Your task to perform on an android device: turn off priority inbox in the gmail app Image 0: 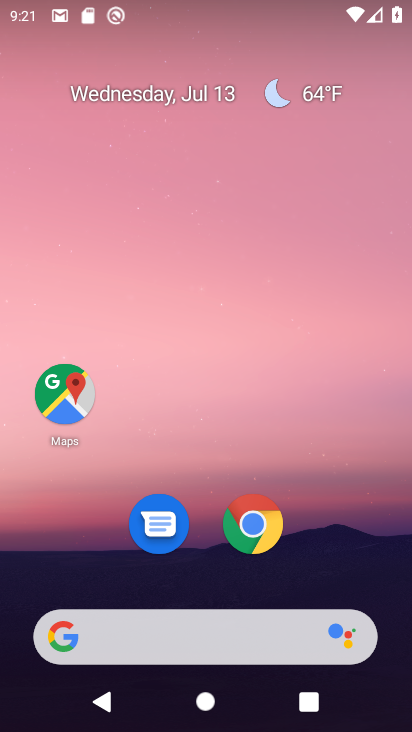
Step 0: drag from (188, 592) to (215, 47)
Your task to perform on an android device: turn off priority inbox in the gmail app Image 1: 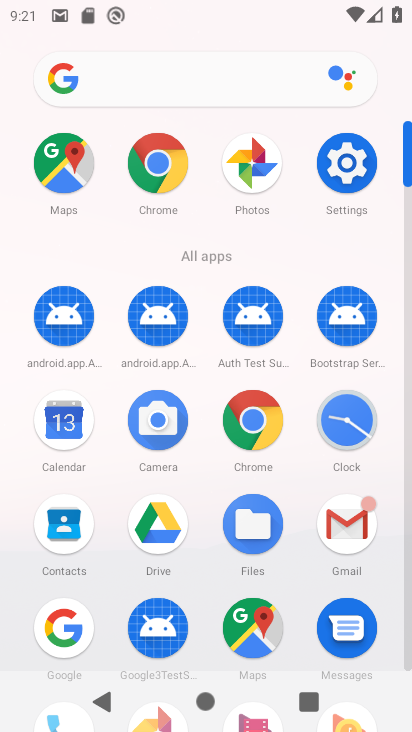
Step 1: click (339, 524)
Your task to perform on an android device: turn off priority inbox in the gmail app Image 2: 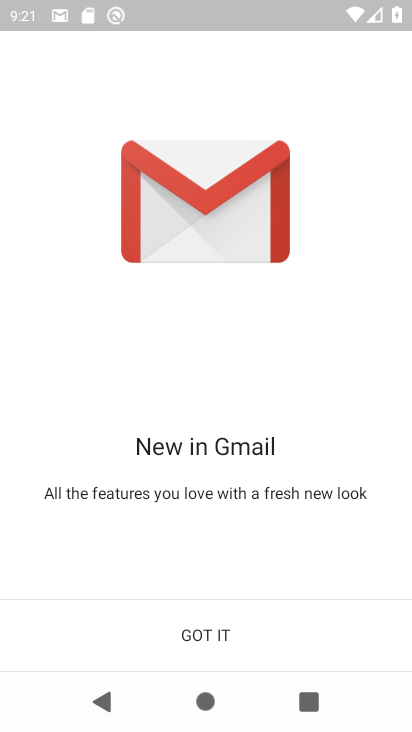
Step 2: click (179, 656)
Your task to perform on an android device: turn off priority inbox in the gmail app Image 3: 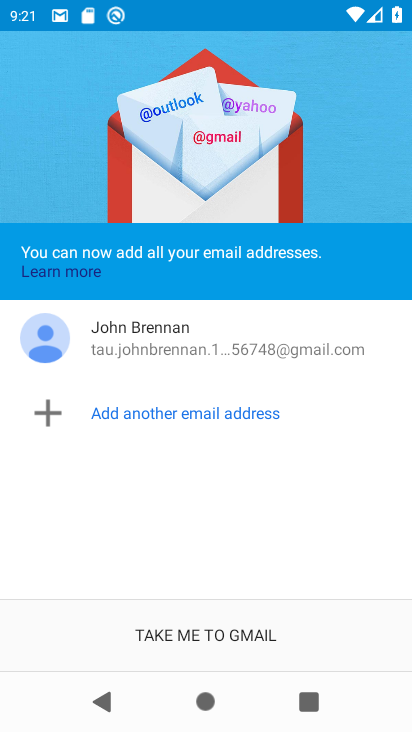
Step 3: click (180, 655)
Your task to perform on an android device: turn off priority inbox in the gmail app Image 4: 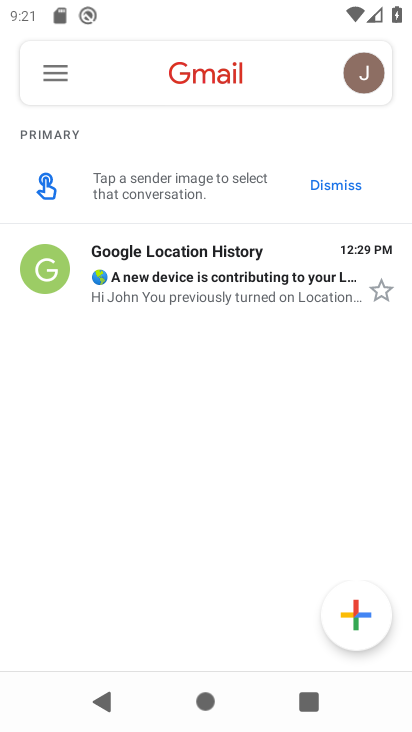
Step 4: click (50, 64)
Your task to perform on an android device: turn off priority inbox in the gmail app Image 5: 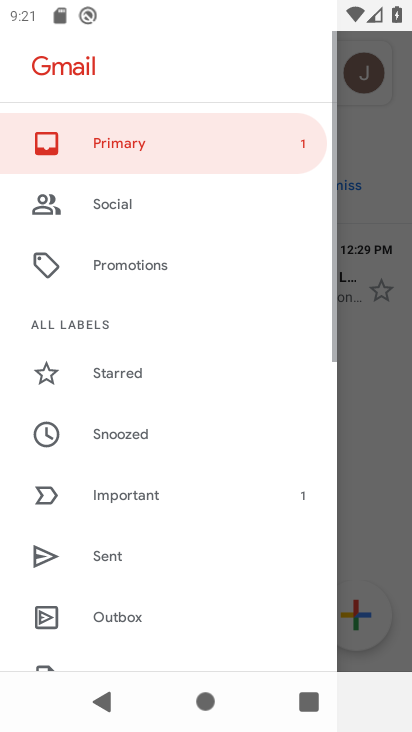
Step 5: drag from (206, 628) to (147, 53)
Your task to perform on an android device: turn off priority inbox in the gmail app Image 6: 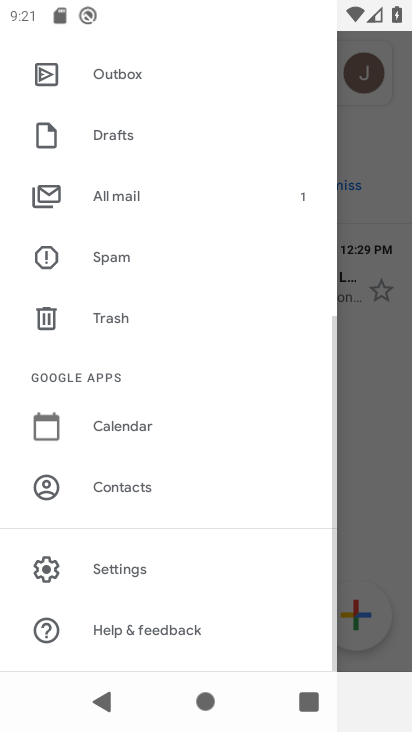
Step 6: click (51, 564)
Your task to perform on an android device: turn off priority inbox in the gmail app Image 7: 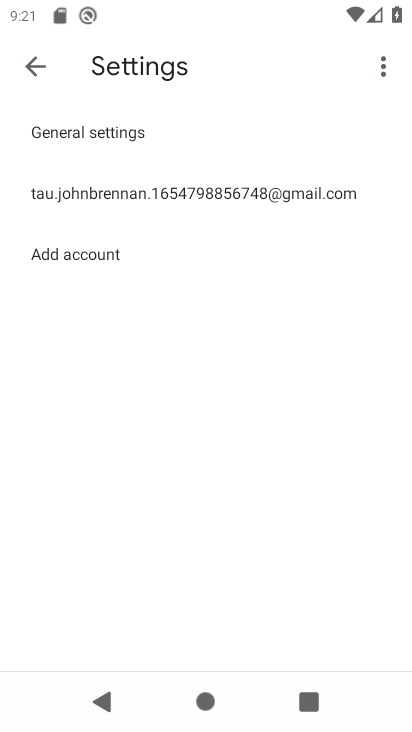
Step 7: click (58, 199)
Your task to perform on an android device: turn off priority inbox in the gmail app Image 8: 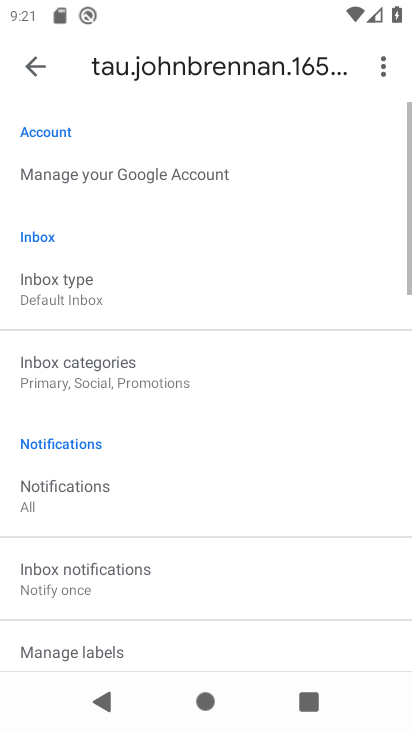
Step 8: click (92, 275)
Your task to perform on an android device: turn off priority inbox in the gmail app Image 9: 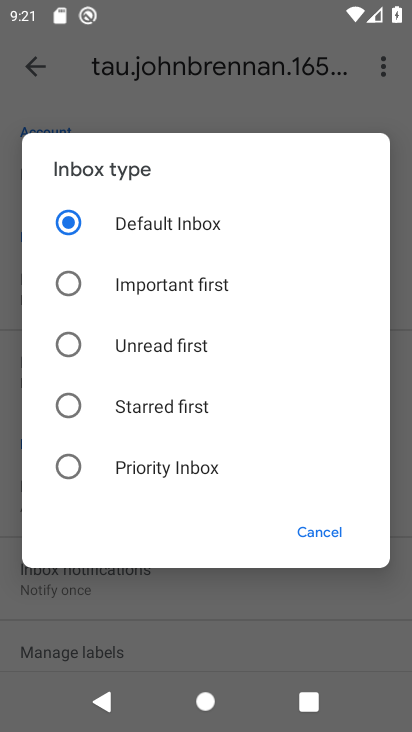
Step 9: task complete